Your task to perform on an android device: turn on location history Image 0: 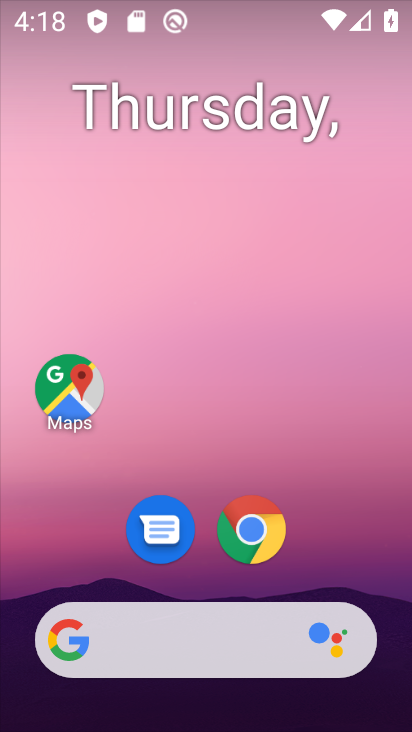
Step 0: drag from (247, 717) to (242, 136)
Your task to perform on an android device: turn on location history Image 1: 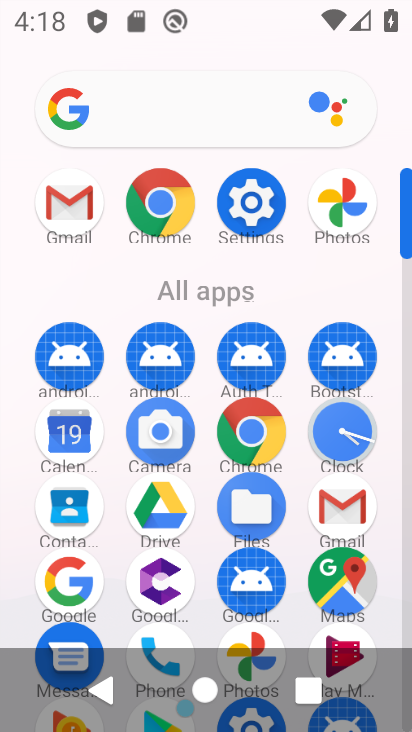
Step 1: click (253, 199)
Your task to perform on an android device: turn on location history Image 2: 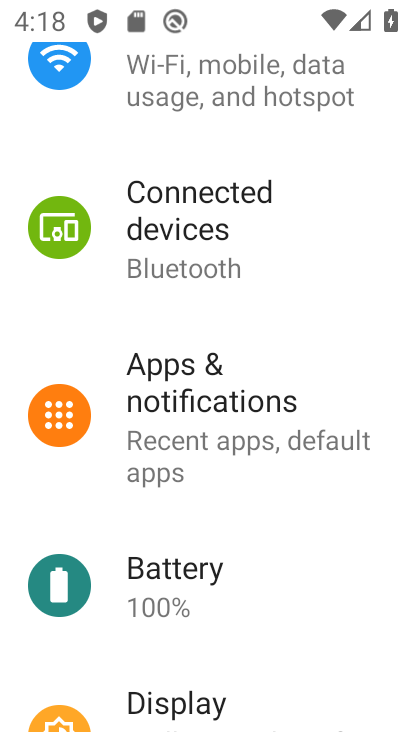
Step 2: drag from (215, 250) to (228, 535)
Your task to perform on an android device: turn on location history Image 3: 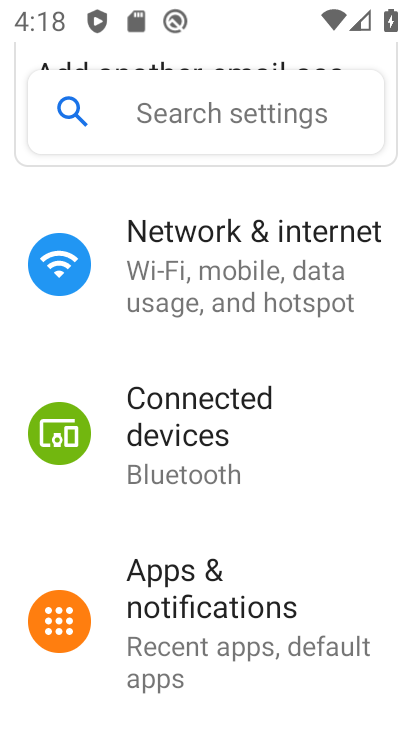
Step 3: drag from (145, 609) to (146, 201)
Your task to perform on an android device: turn on location history Image 4: 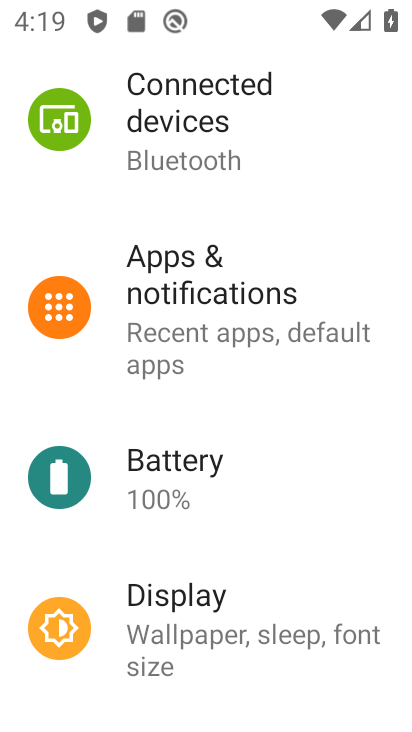
Step 4: drag from (197, 623) to (182, 199)
Your task to perform on an android device: turn on location history Image 5: 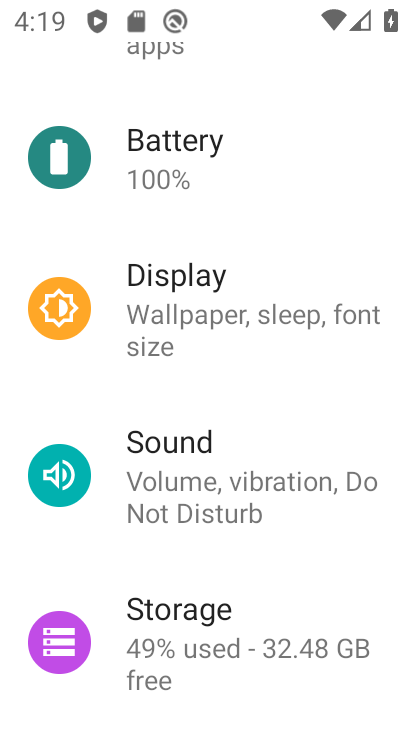
Step 5: drag from (202, 661) to (205, 208)
Your task to perform on an android device: turn on location history Image 6: 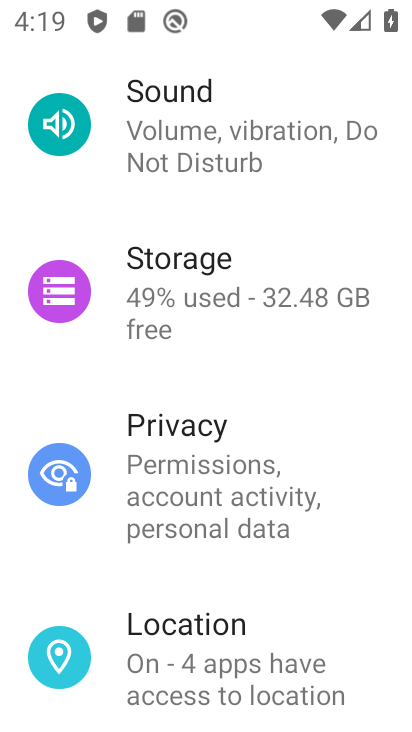
Step 6: click (166, 615)
Your task to perform on an android device: turn on location history Image 7: 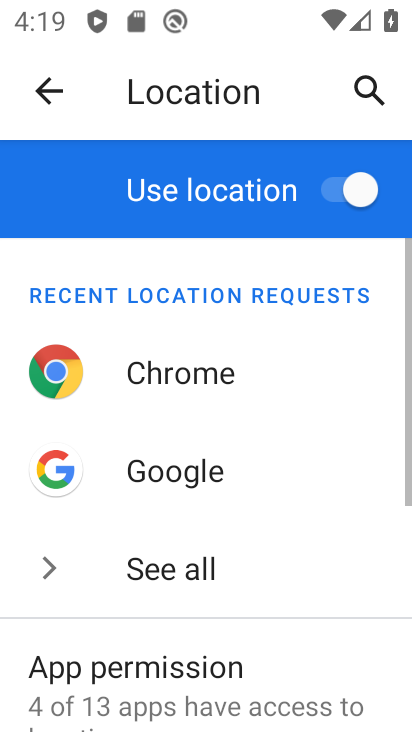
Step 7: drag from (157, 688) to (159, 217)
Your task to perform on an android device: turn on location history Image 8: 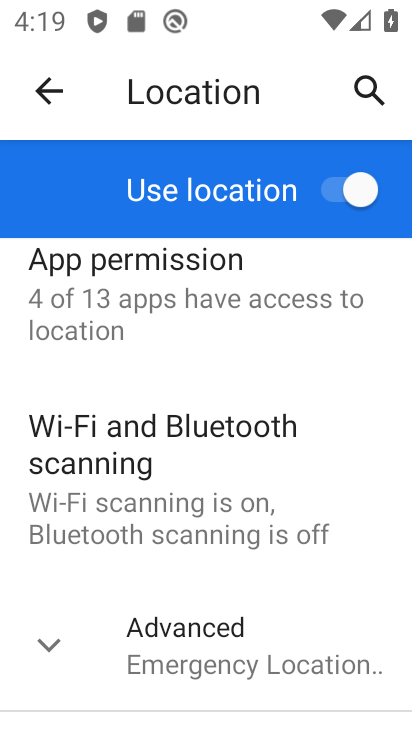
Step 8: drag from (174, 695) to (180, 303)
Your task to perform on an android device: turn on location history Image 9: 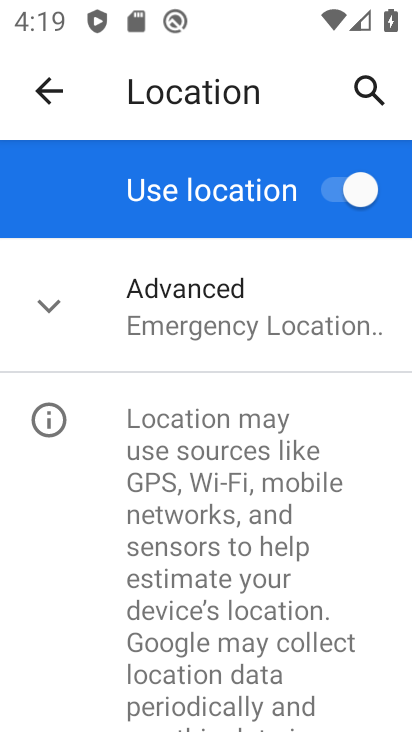
Step 9: click (189, 322)
Your task to perform on an android device: turn on location history Image 10: 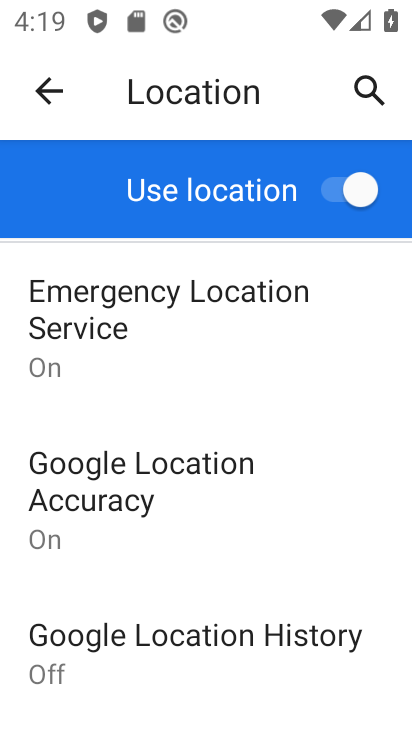
Step 10: click (137, 631)
Your task to perform on an android device: turn on location history Image 11: 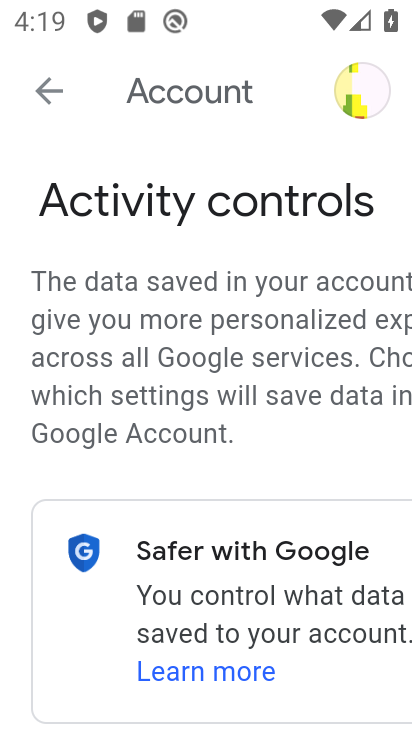
Step 11: task complete